Your task to perform on an android device: make emails show in primary in the gmail app Image 0: 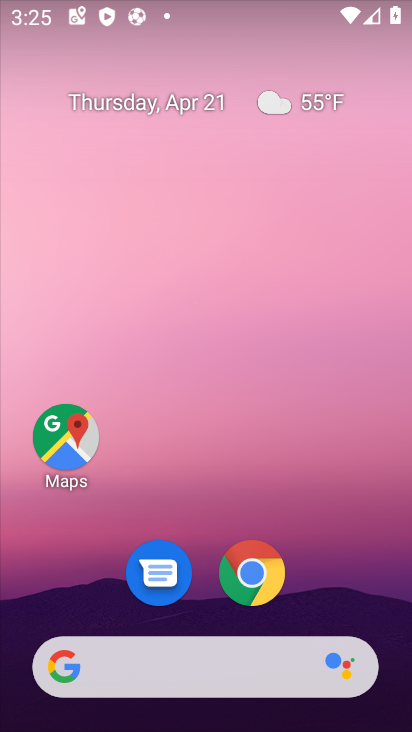
Step 0: drag from (365, 606) to (309, 133)
Your task to perform on an android device: make emails show in primary in the gmail app Image 1: 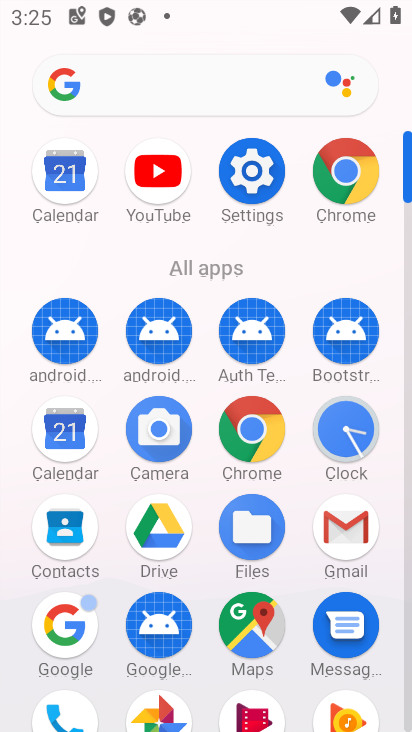
Step 1: click (407, 689)
Your task to perform on an android device: make emails show in primary in the gmail app Image 2: 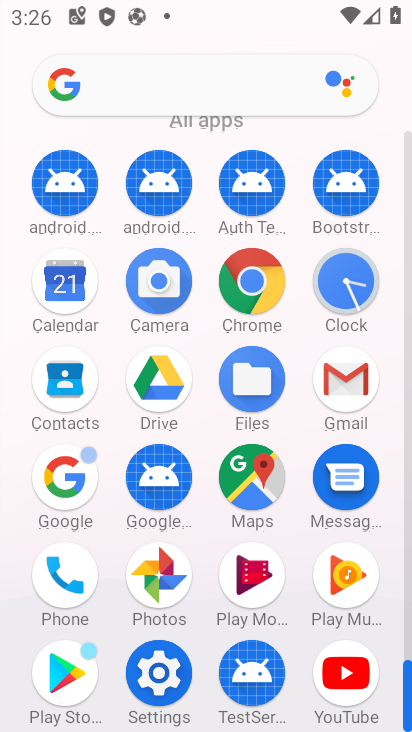
Step 2: click (350, 378)
Your task to perform on an android device: make emails show in primary in the gmail app Image 3: 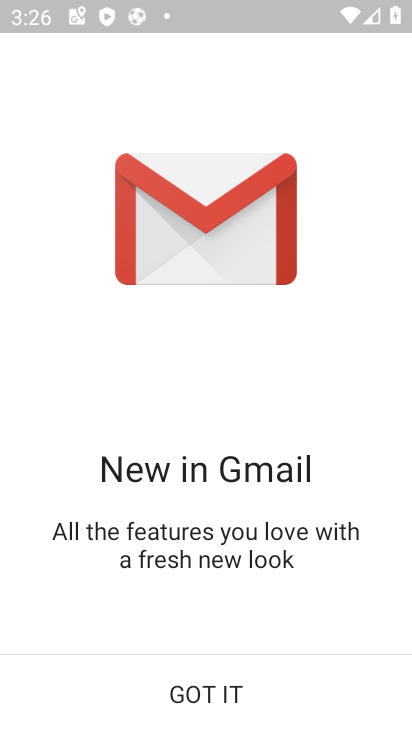
Step 3: click (203, 694)
Your task to perform on an android device: make emails show in primary in the gmail app Image 4: 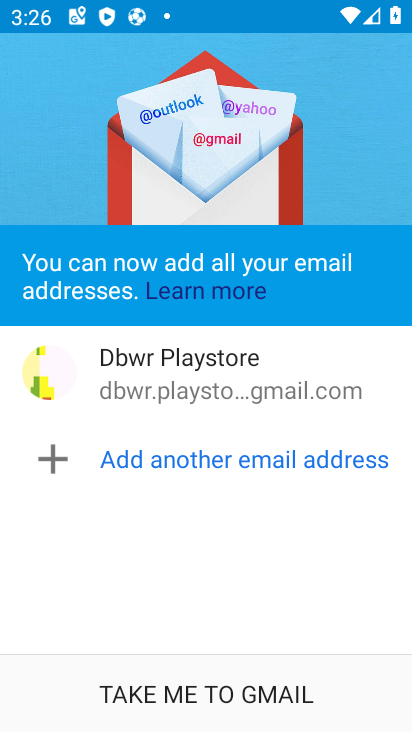
Step 4: click (182, 693)
Your task to perform on an android device: make emails show in primary in the gmail app Image 5: 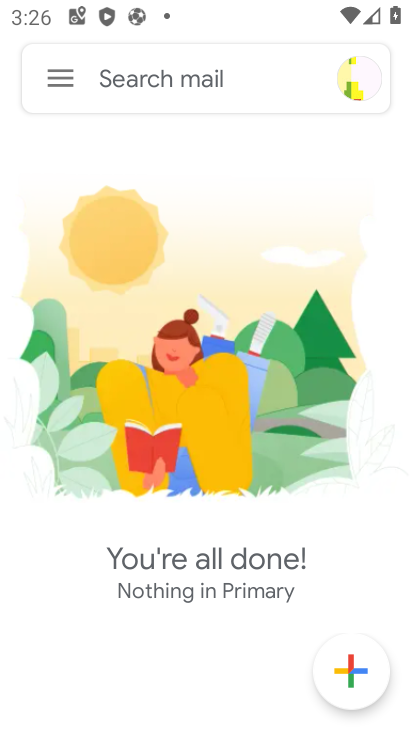
Step 5: click (56, 74)
Your task to perform on an android device: make emails show in primary in the gmail app Image 6: 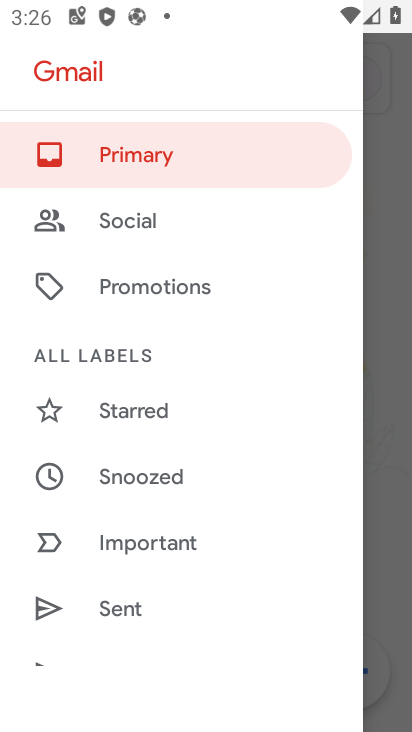
Step 6: click (207, 157)
Your task to perform on an android device: make emails show in primary in the gmail app Image 7: 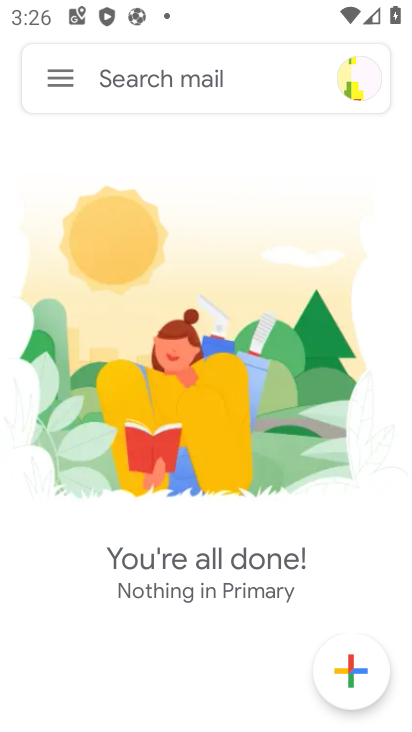
Step 7: task complete